Your task to perform on an android device: Set an alarm for 11am Image 0: 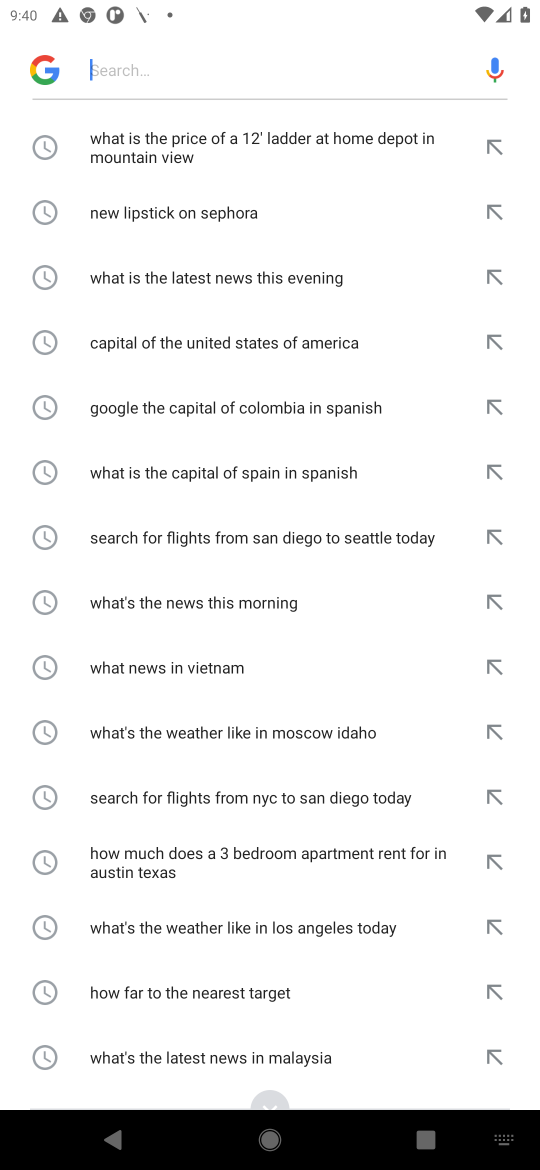
Step 0: press home button
Your task to perform on an android device: Set an alarm for 11am Image 1: 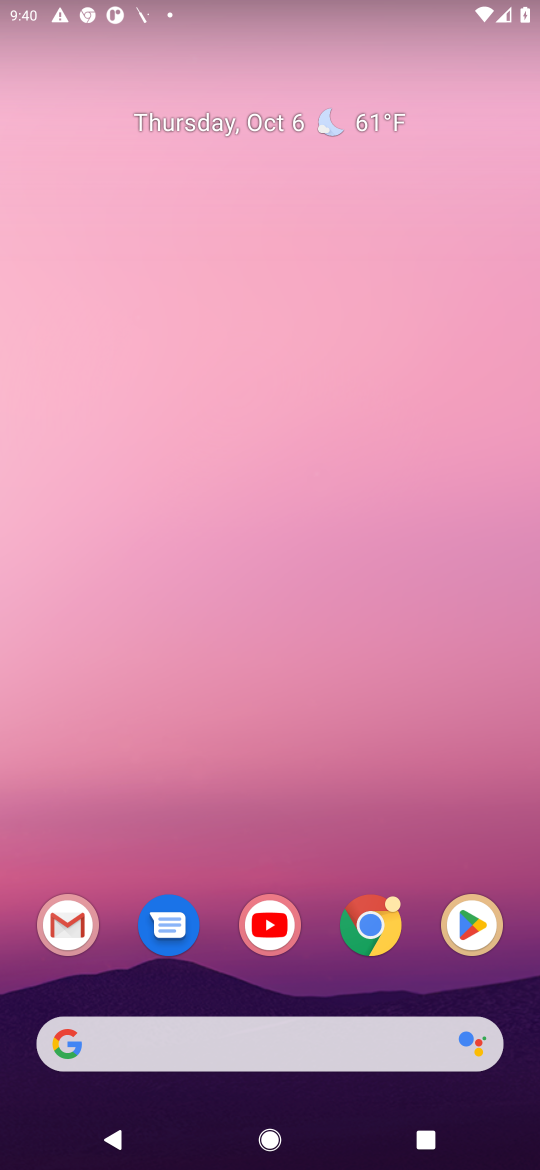
Step 1: drag from (384, 548) to (472, 330)
Your task to perform on an android device: Set an alarm for 11am Image 2: 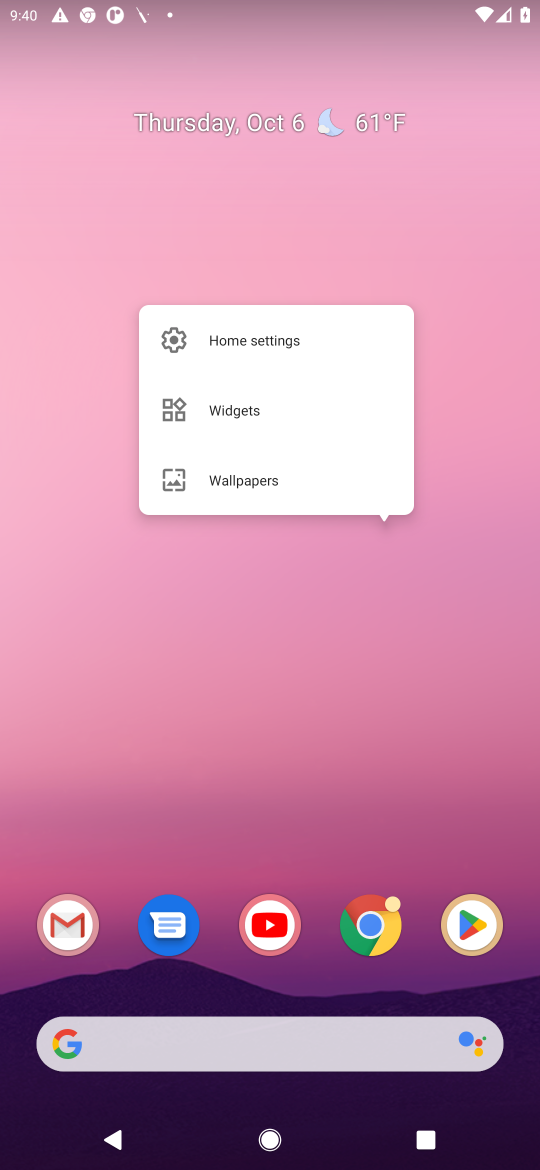
Step 2: drag from (207, 983) to (300, 26)
Your task to perform on an android device: Set an alarm for 11am Image 3: 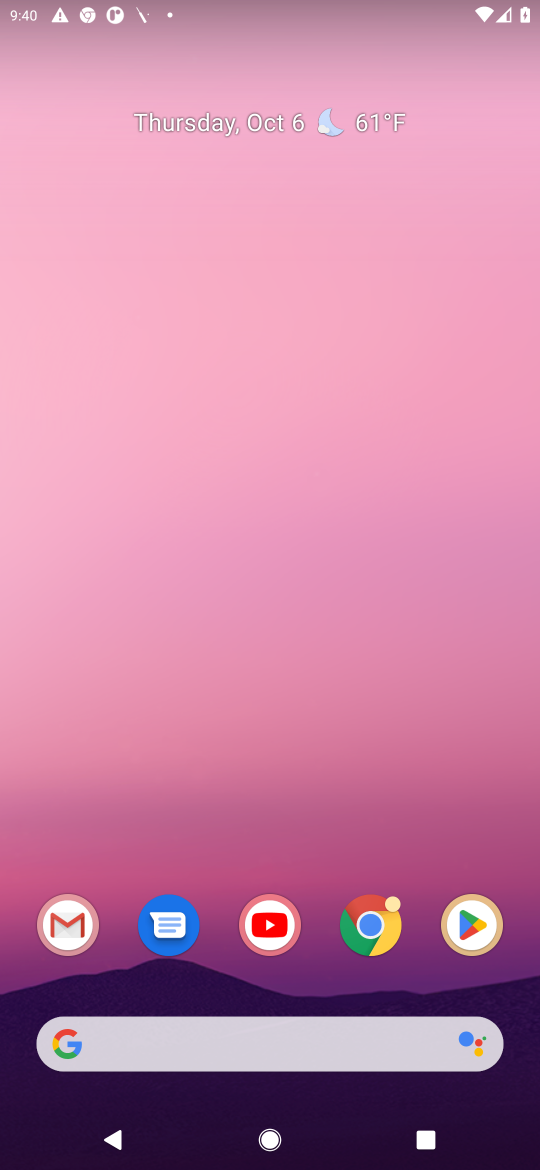
Step 3: click (322, 993)
Your task to perform on an android device: Set an alarm for 11am Image 4: 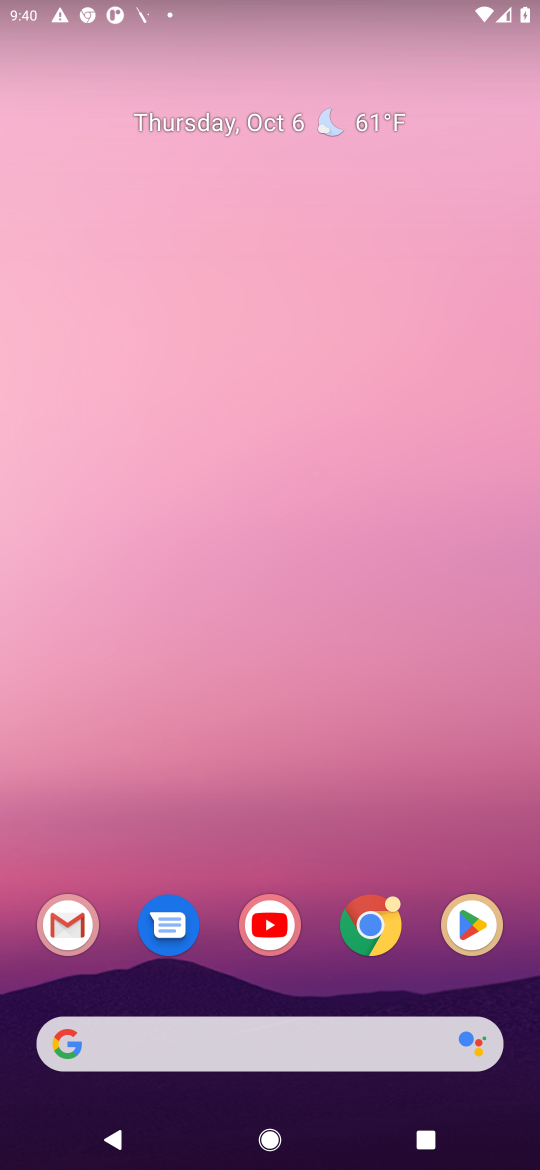
Step 4: drag from (204, 987) to (356, 182)
Your task to perform on an android device: Set an alarm for 11am Image 5: 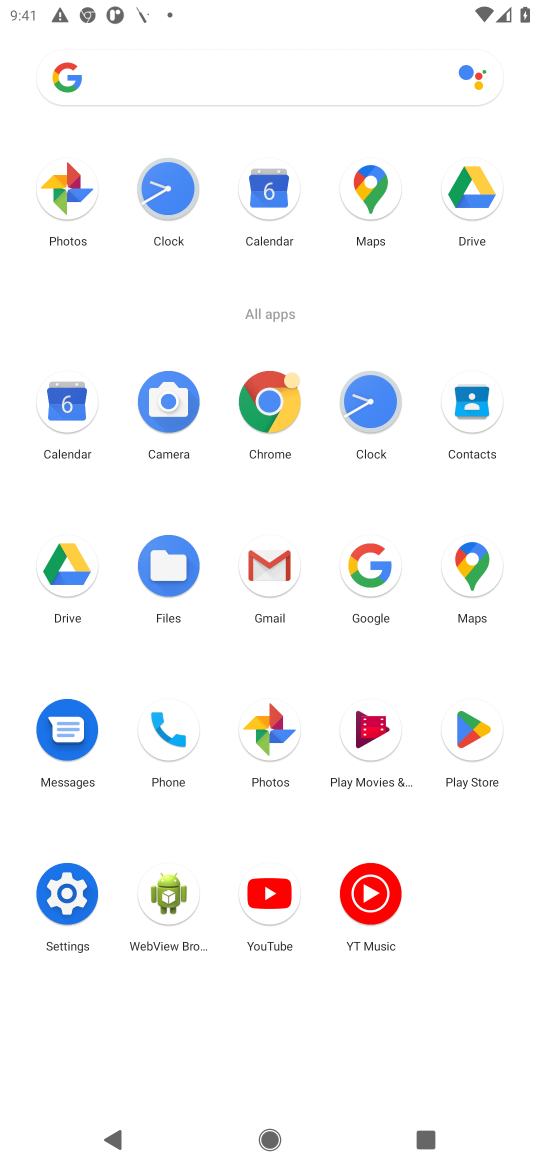
Step 5: click (160, 174)
Your task to perform on an android device: Set an alarm for 11am Image 6: 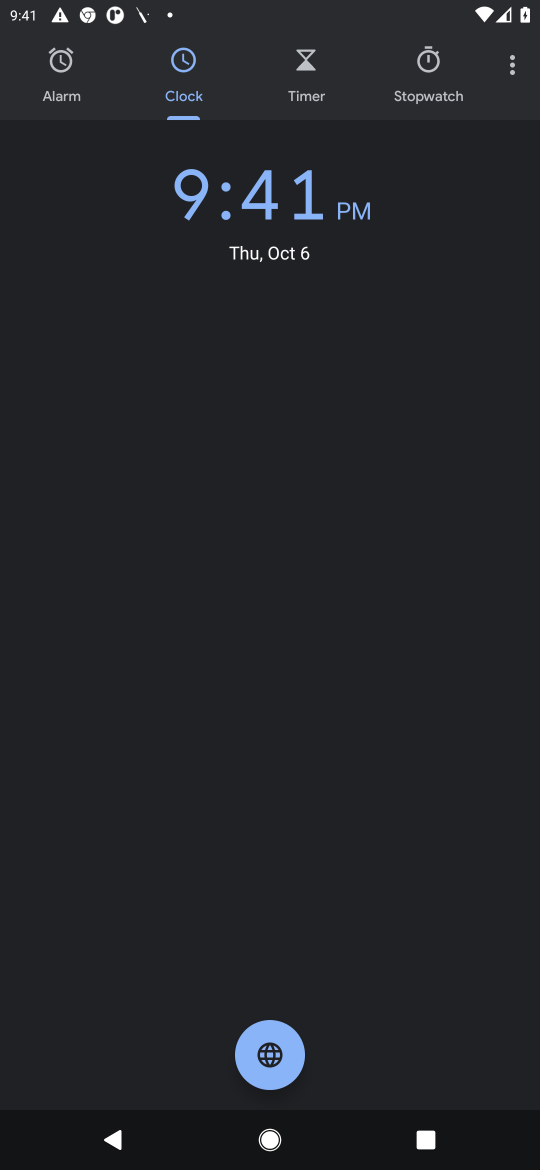
Step 6: click (42, 85)
Your task to perform on an android device: Set an alarm for 11am Image 7: 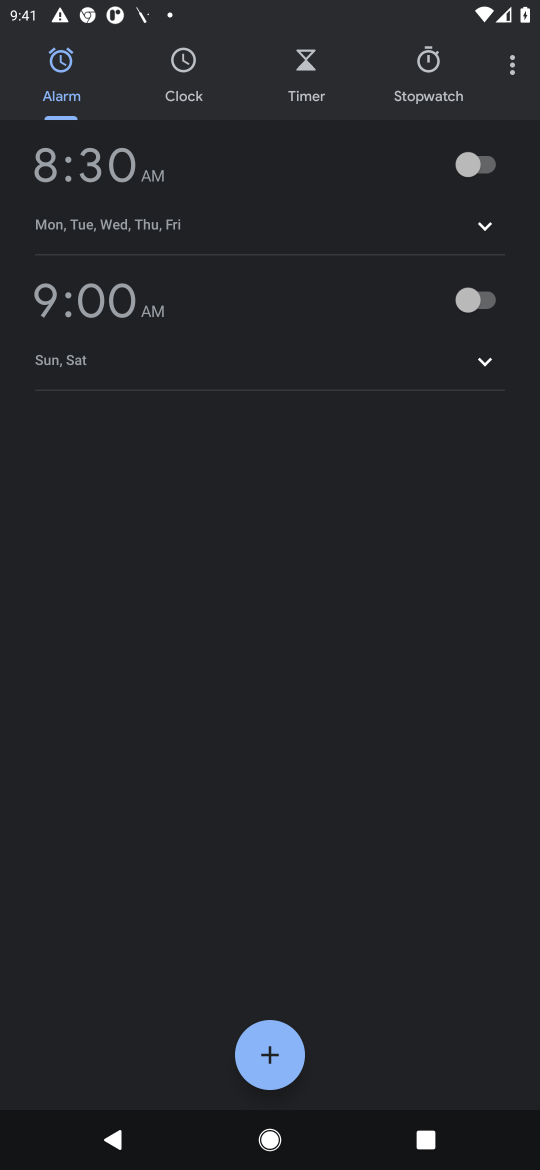
Step 7: click (54, 84)
Your task to perform on an android device: Set an alarm for 11am Image 8: 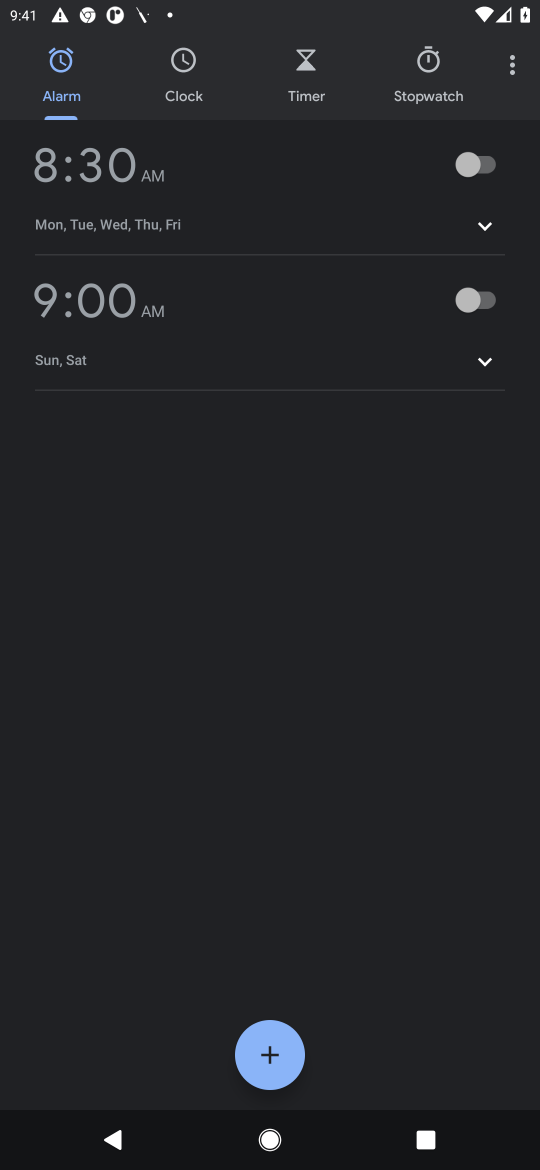
Step 8: click (277, 1087)
Your task to perform on an android device: Set an alarm for 11am Image 9: 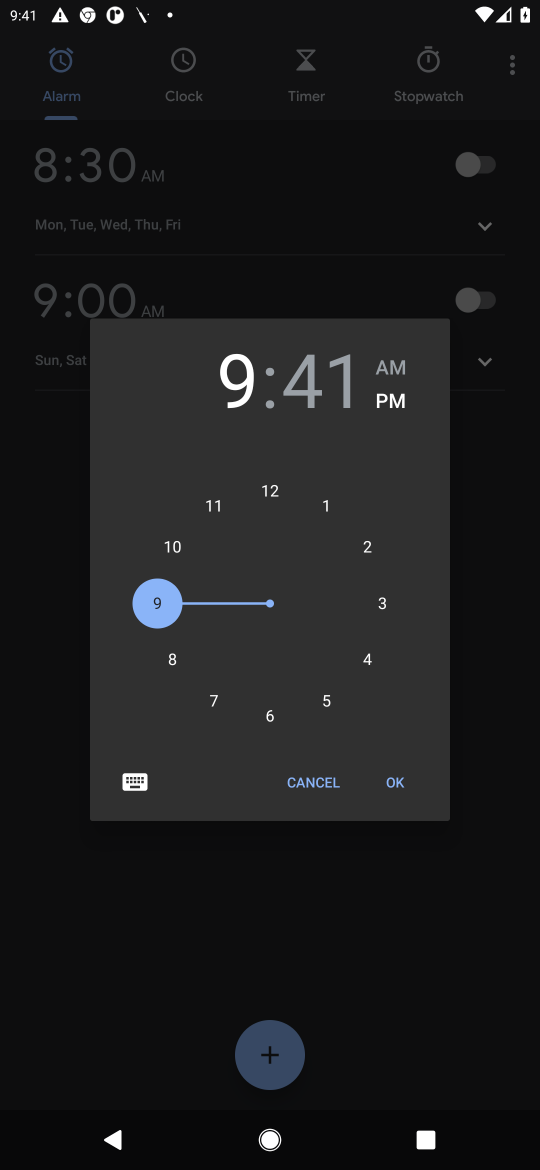
Step 9: click (209, 499)
Your task to perform on an android device: Set an alarm for 11am Image 10: 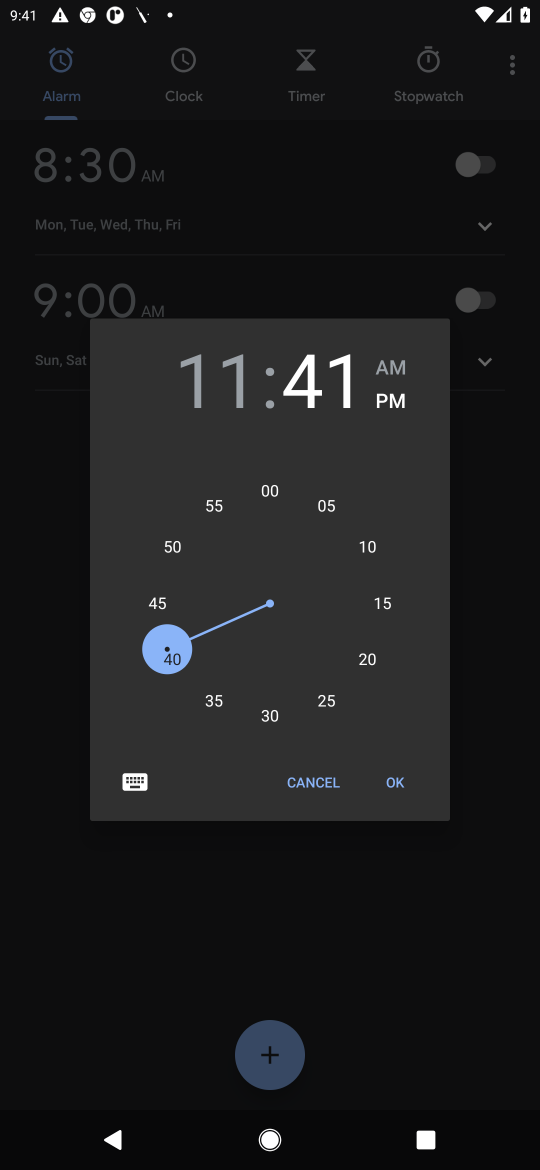
Step 10: click (273, 493)
Your task to perform on an android device: Set an alarm for 11am Image 11: 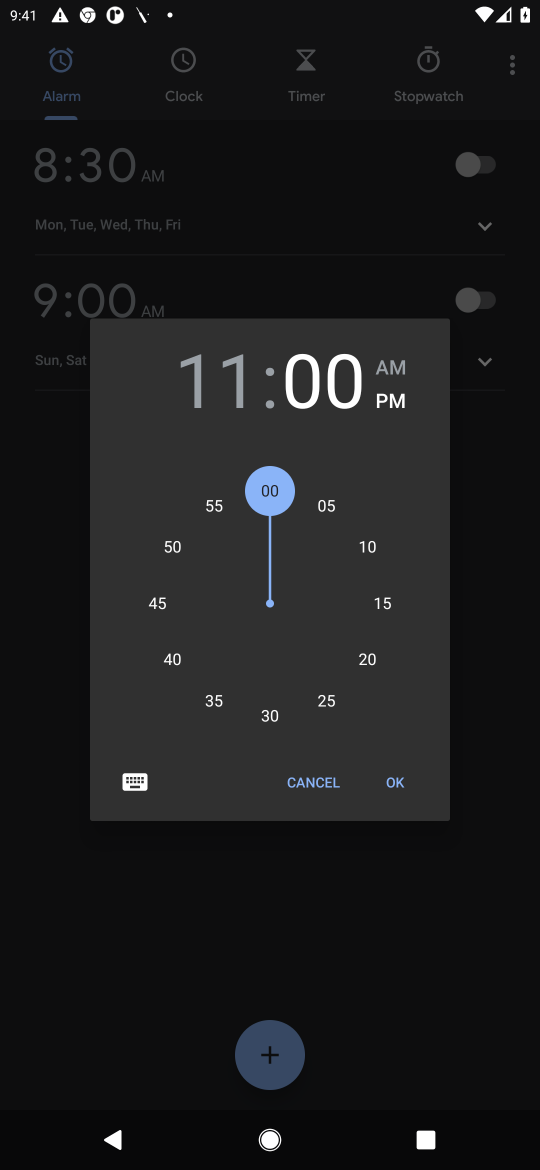
Step 11: click (273, 493)
Your task to perform on an android device: Set an alarm for 11am Image 12: 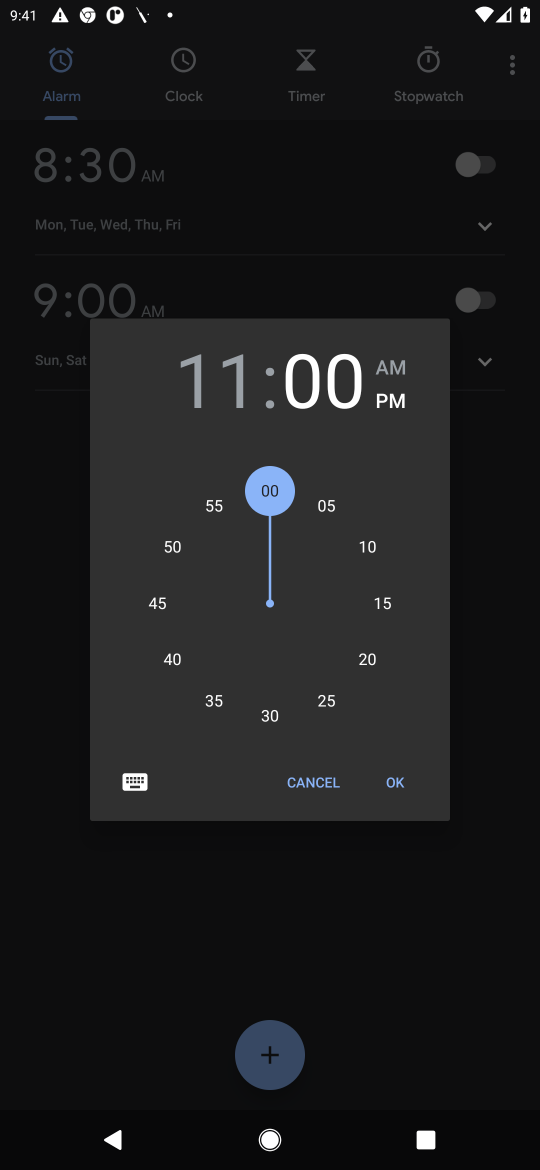
Step 12: click (390, 365)
Your task to perform on an android device: Set an alarm for 11am Image 13: 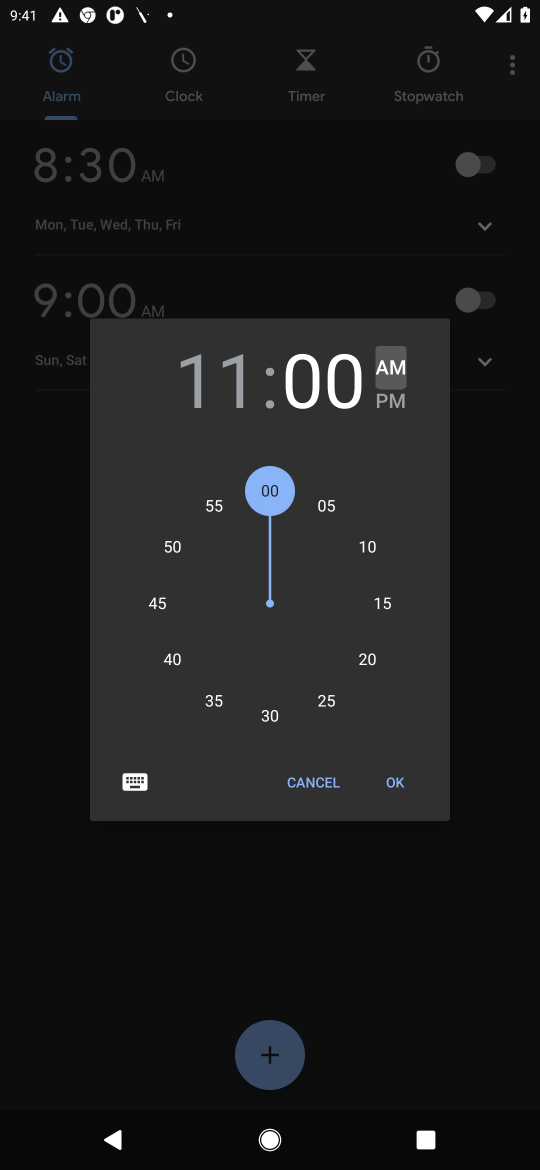
Step 13: click (401, 370)
Your task to perform on an android device: Set an alarm for 11am Image 14: 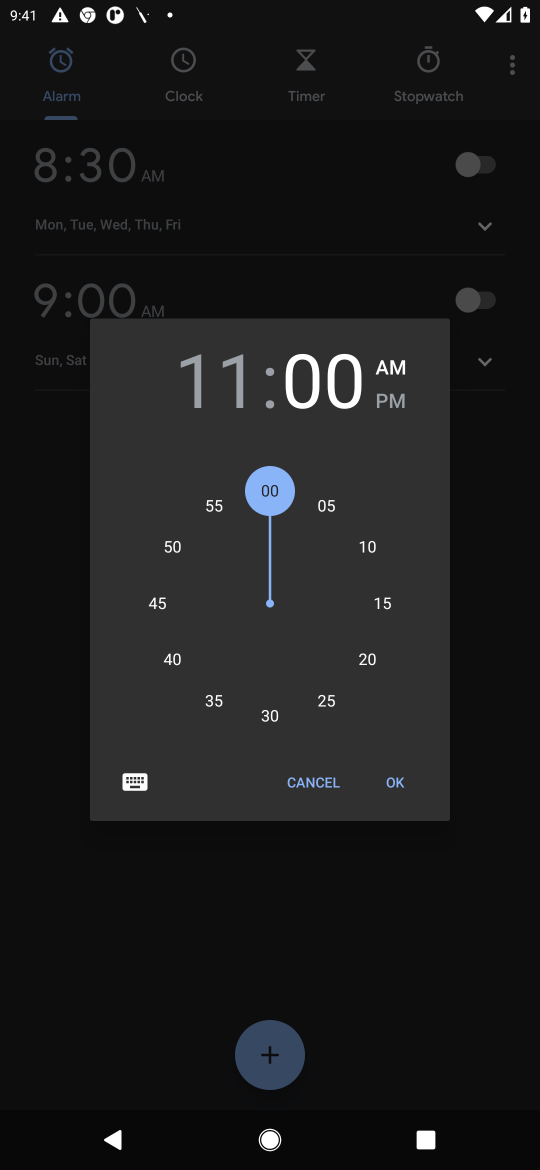
Step 14: click (398, 797)
Your task to perform on an android device: Set an alarm for 11am Image 15: 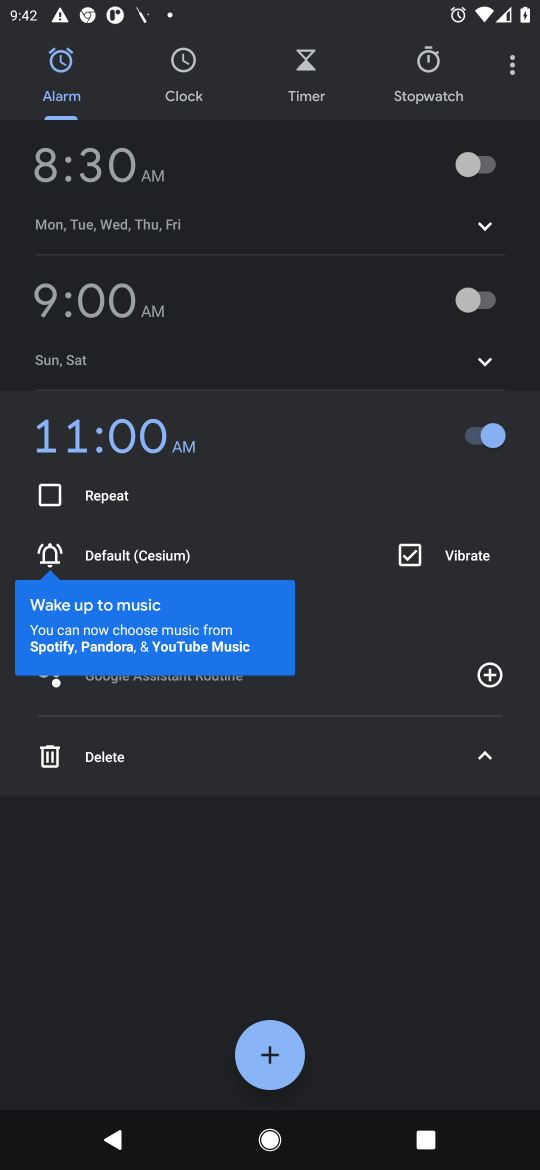
Step 15: task complete